Your task to perform on an android device: allow notifications from all sites in the chrome app Image 0: 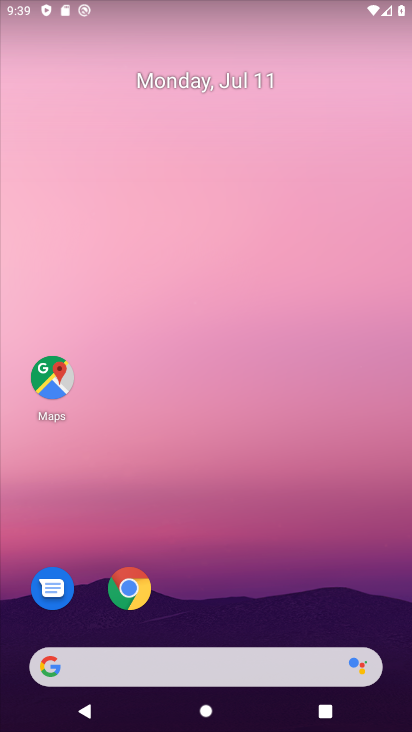
Step 0: press home button
Your task to perform on an android device: allow notifications from all sites in the chrome app Image 1: 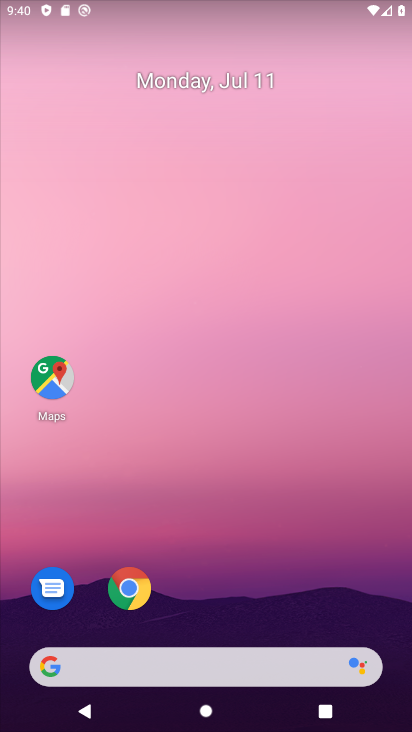
Step 1: drag from (234, 578) to (232, 157)
Your task to perform on an android device: allow notifications from all sites in the chrome app Image 2: 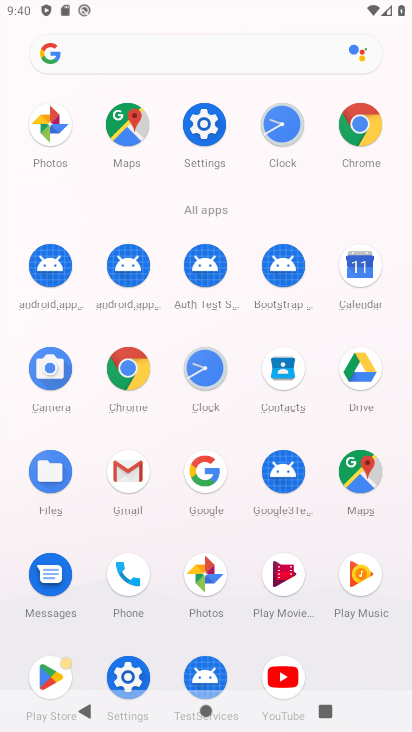
Step 2: click (133, 369)
Your task to perform on an android device: allow notifications from all sites in the chrome app Image 3: 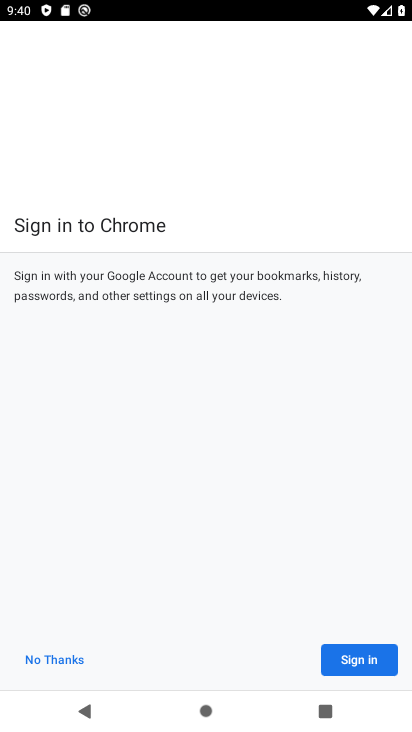
Step 3: click (356, 653)
Your task to perform on an android device: allow notifications from all sites in the chrome app Image 4: 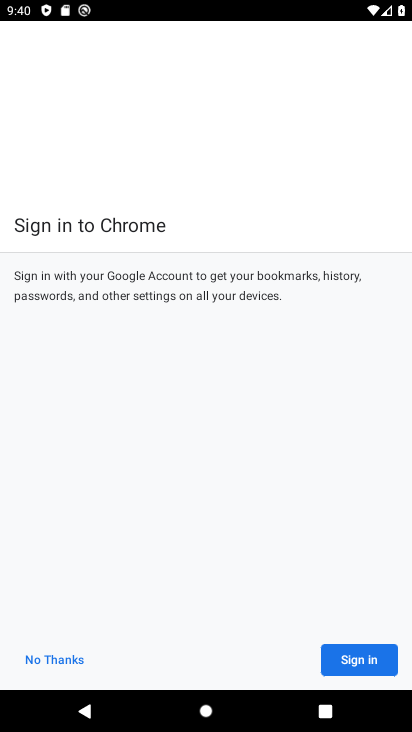
Step 4: click (342, 644)
Your task to perform on an android device: allow notifications from all sites in the chrome app Image 5: 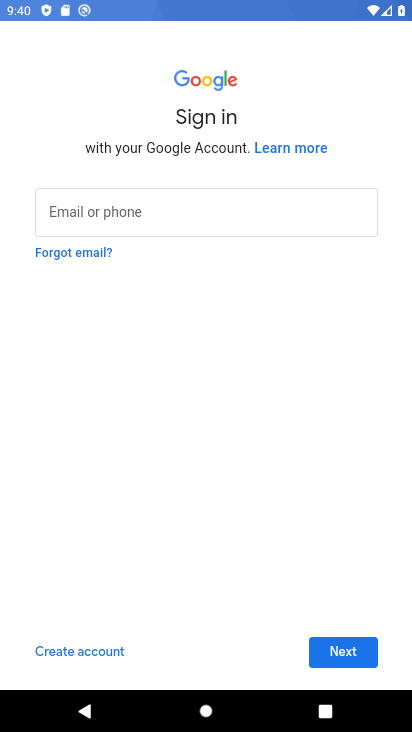
Step 5: task complete